Your task to perform on an android device: What is the recent news? Image 0: 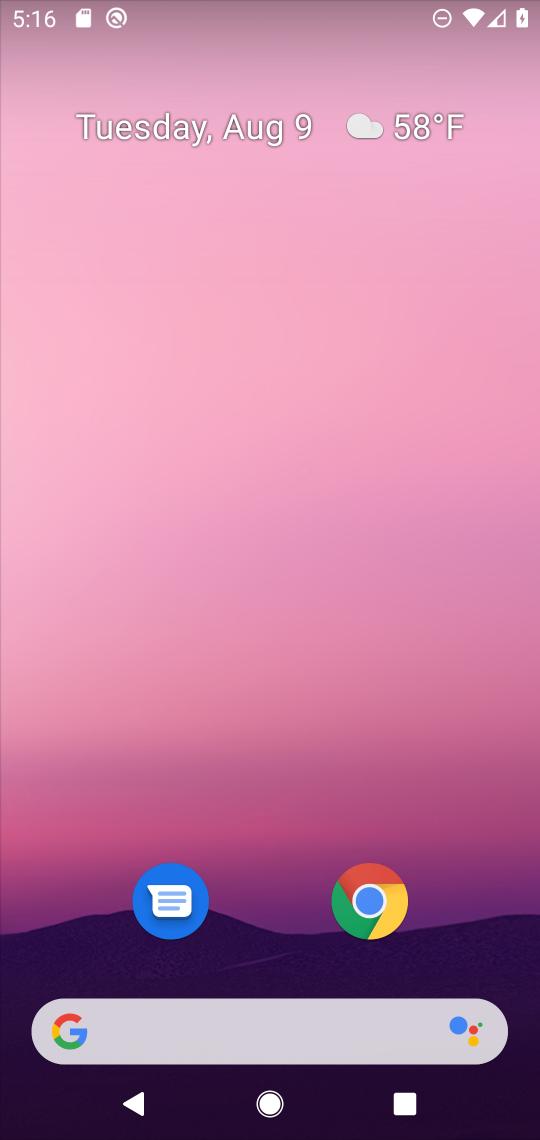
Step 0: drag from (290, 945) to (421, 133)
Your task to perform on an android device: What is the recent news? Image 1: 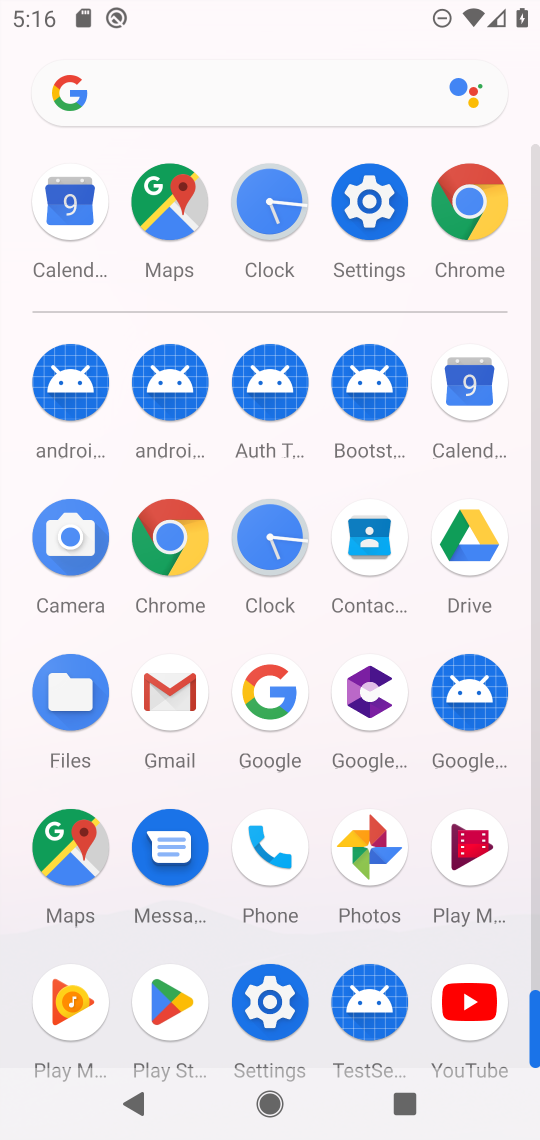
Step 1: click (171, 519)
Your task to perform on an android device: What is the recent news? Image 2: 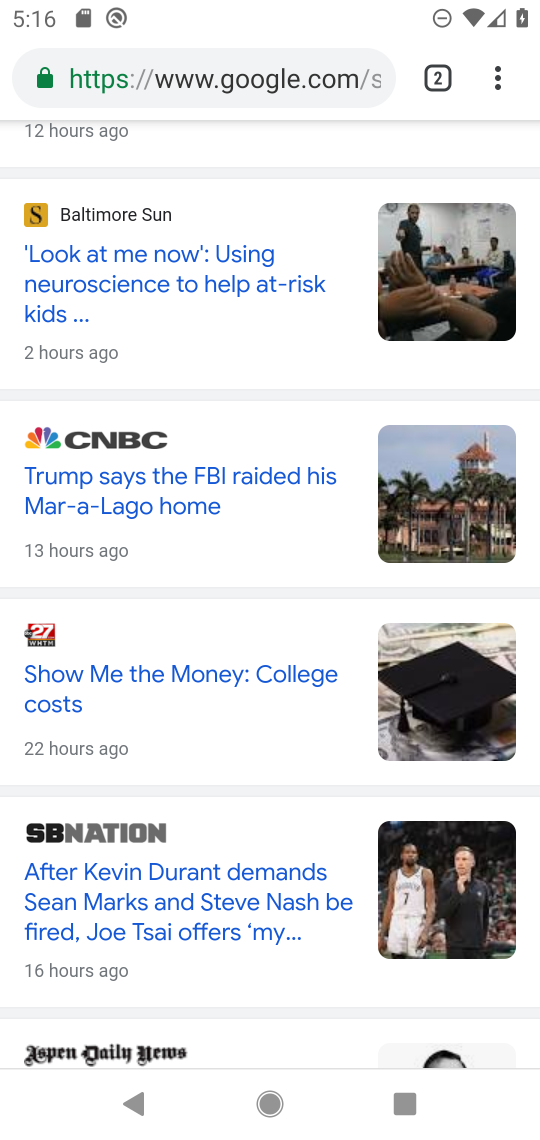
Step 2: task complete